Your task to perform on an android device: Open the stopwatch Image 0: 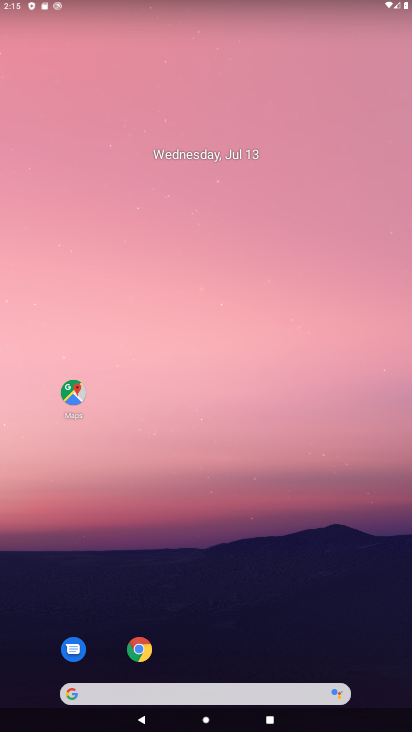
Step 0: drag from (233, 598) to (220, 164)
Your task to perform on an android device: Open the stopwatch Image 1: 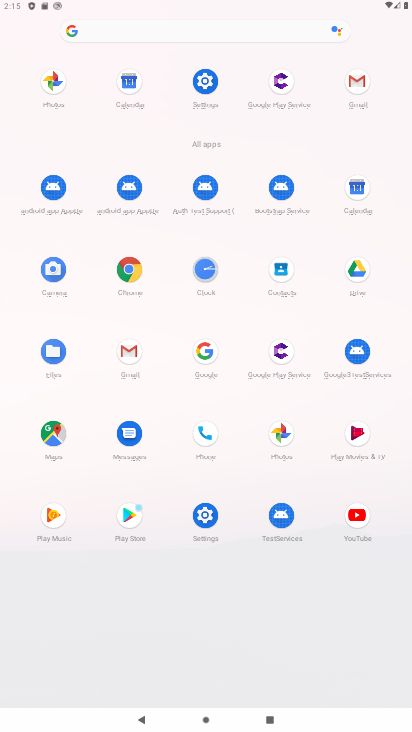
Step 1: click (207, 264)
Your task to perform on an android device: Open the stopwatch Image 2: 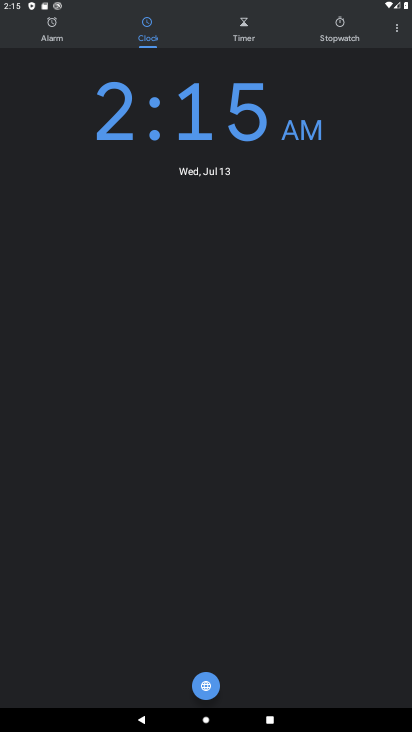
Step 2: click (341, 30)
Your task to perform on an android device: Open the stopwatch Image 3: 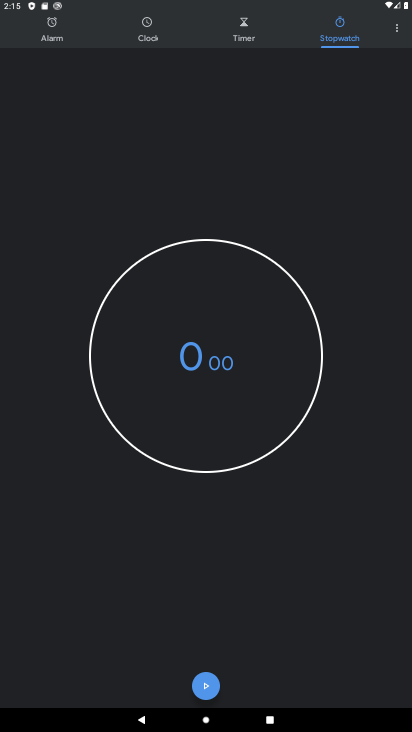
Step 3: task complete